Your task to perform on an android device: change alarm snooze length Image 0: 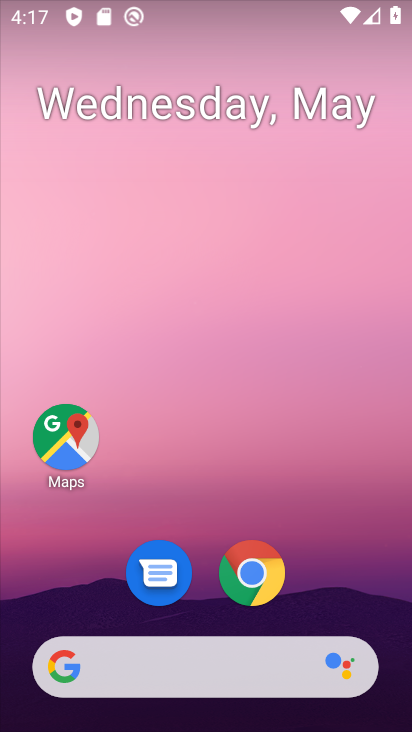
Step 0: click (158, 6)
Your task to perform on an android device: change alarm snooze length Image 1: 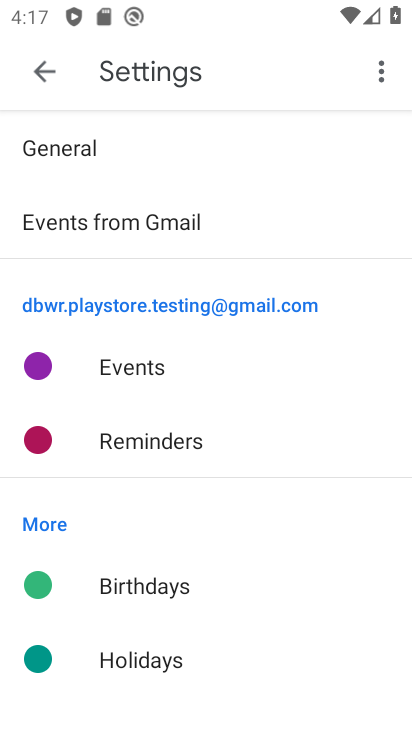
Step 1: press back button
Your task to perform on an android device: change alarm snooze length Image 2: 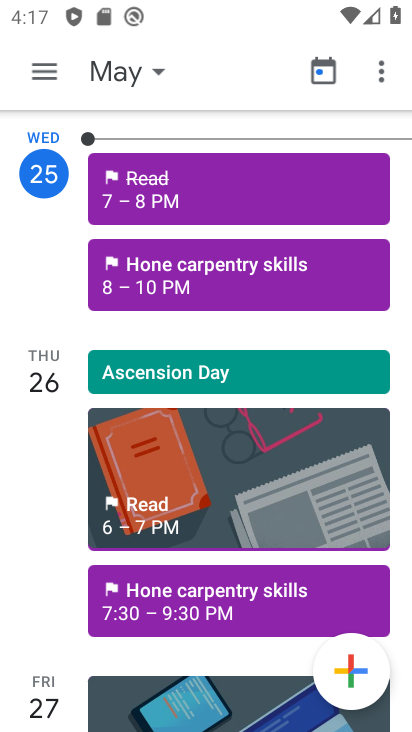
Step 2: press home button
Your task to perform on an android device: change alarm snooze length Image 3: 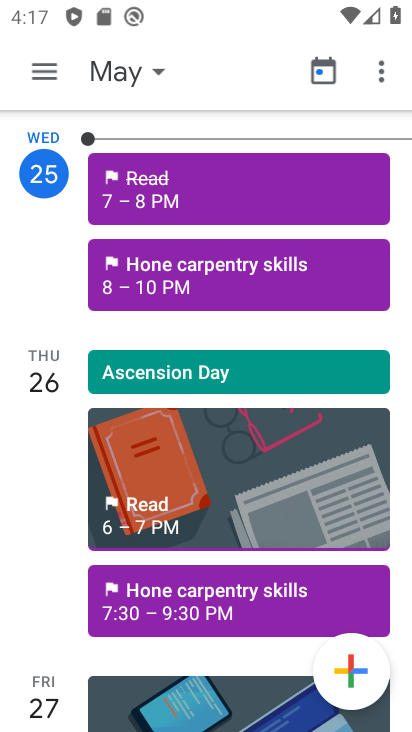
Step 3: press home button
Your task to perform on an android device: change alarm snooze length Image 4: 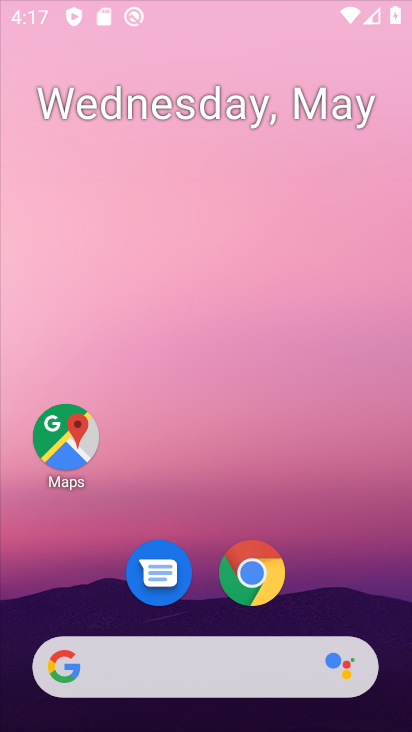
Step 4: press home button
Your task to perform on an android device: change alarm snooze length Image 5: 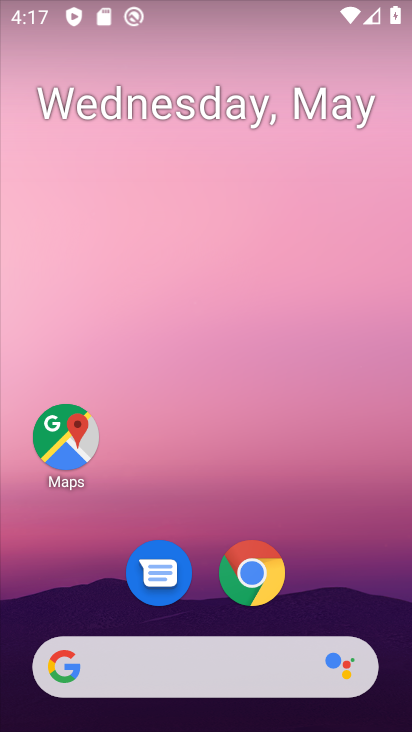
Step 5: drag from (334, 590) to (141, 0)
Your task to perform on an android device: change alarm snooze length Image 6: 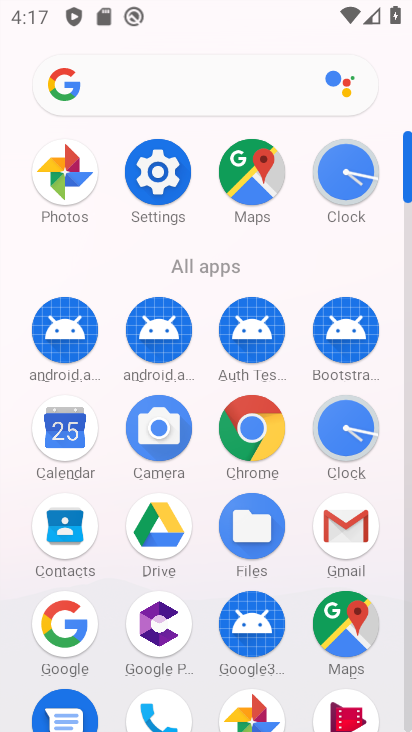
Step 6: click (332, 176)
Your task to perform on an android device: change alarm snooze length Image 7: 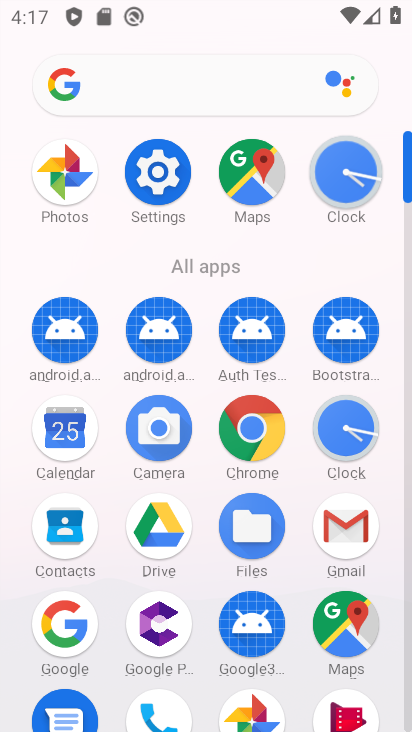
Step 7: click (332, 177)
Your task to perform on an android device: change alarm snooze length Image 8: 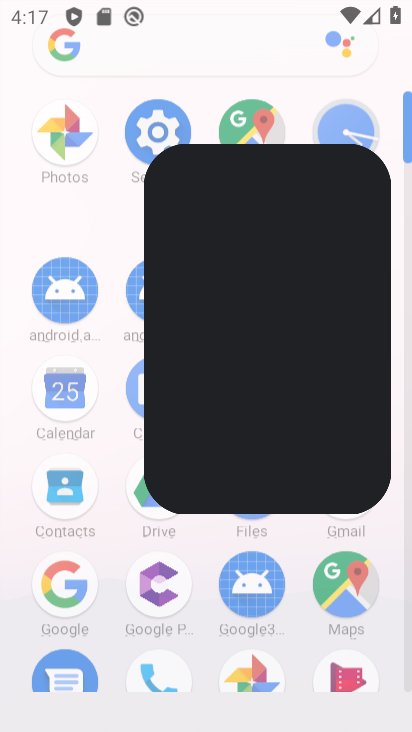
Step 8: click (332, 177)
Your task to perform on an android device: change alarm snooze length Image 9: 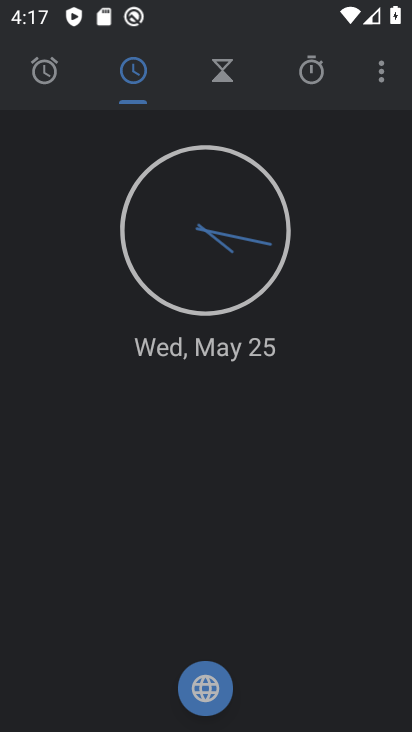
Step 9: click (332, 177)
Your task to perform on an android device: change alarm snooze length Image 10: 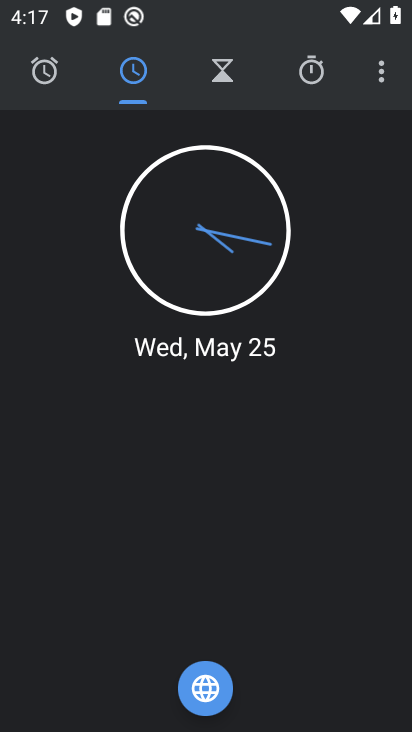
Step 10: click (332, 177)
Your task to perform on an android device: change alarm snooze length Image 11: 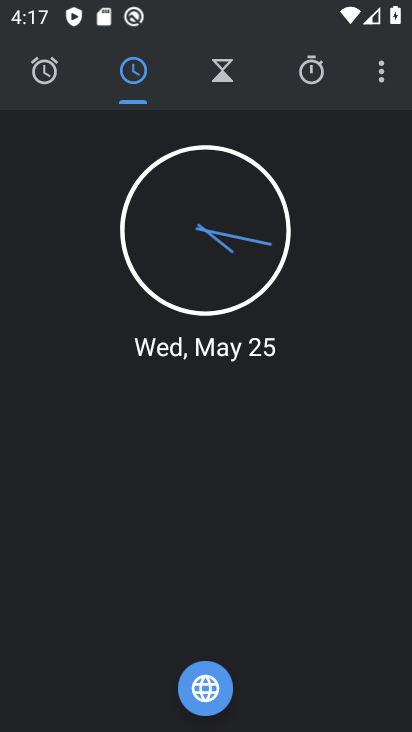
Step 11: click (332, 177)
Your task to perform on an android device: change alarm snooze length Image 12: 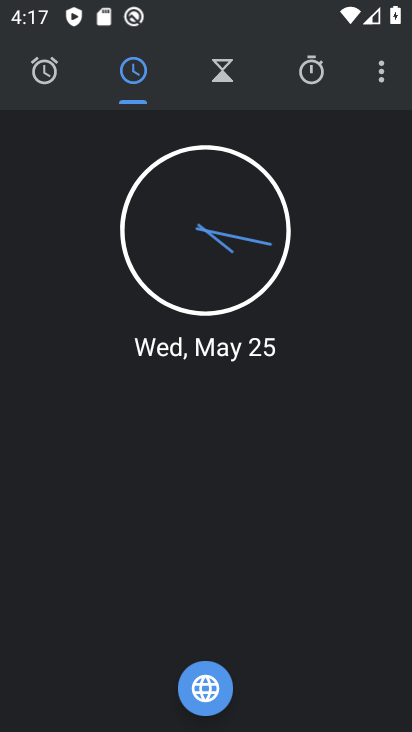
Step 12: drag from (375, 82) to (201, 134)
Your task to perform on an android device: change alarm snooze length Image 13: 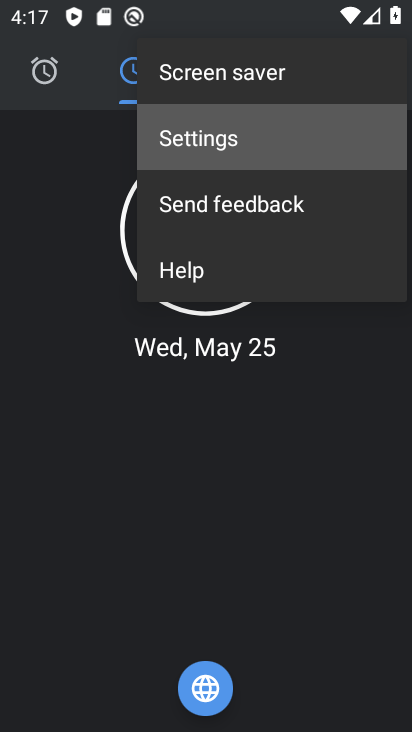
Step 13: click (203, 134)
Your task to perform on an android device: change alarm snooze length Image 14: 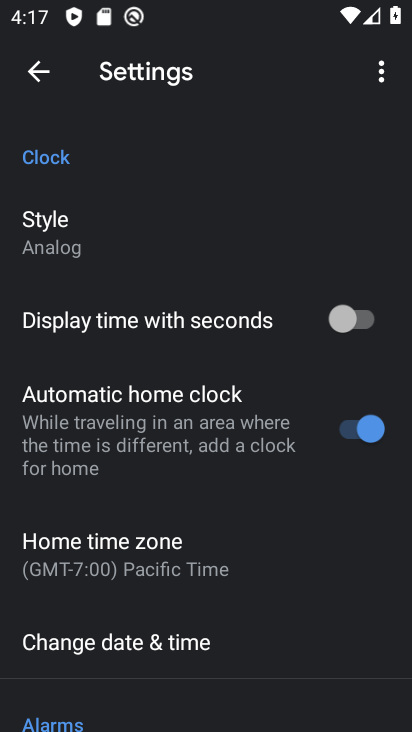
Step 14: drag from (131, 533) to (55, 109)
Your task to perform on an android device: change alarm snooze length Image 15: 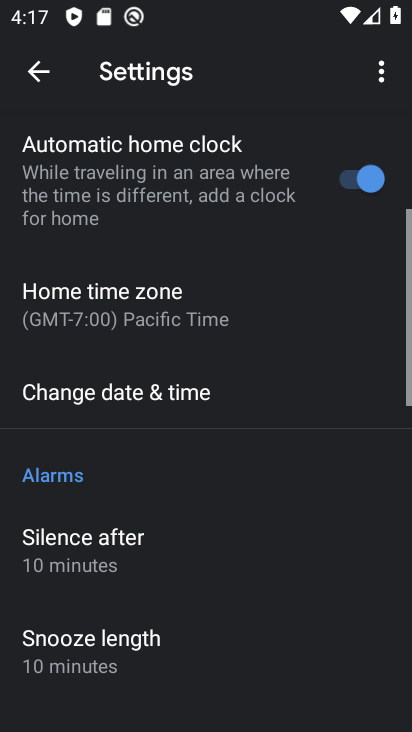
Step 15: drag from (134, 414) to (128, 148)
Your task to perform on an android device: change alarm snooze length Image 16: 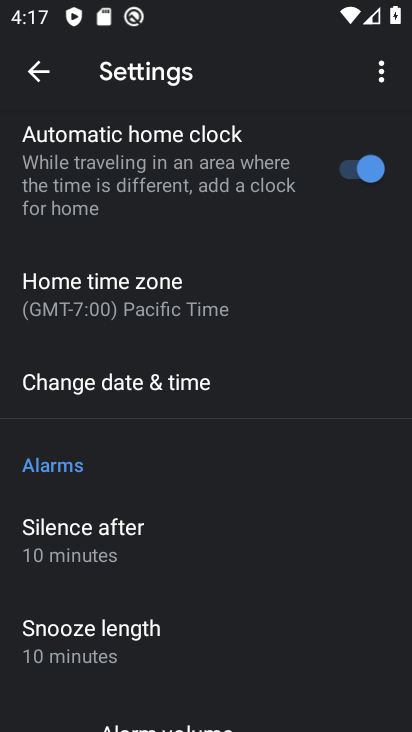
Step 16: click (80, 648)
Your task to perform on an android device: change alarm snooze length Image 17: 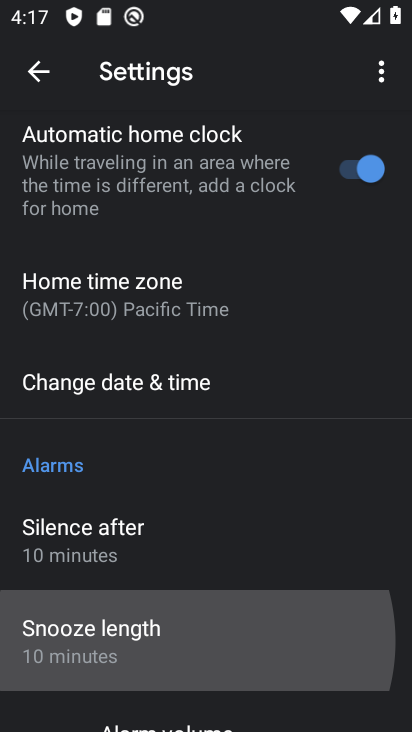
Step 17: click (81, 647)
Your task to perform on an android device: change alarm snooze length Image 18: 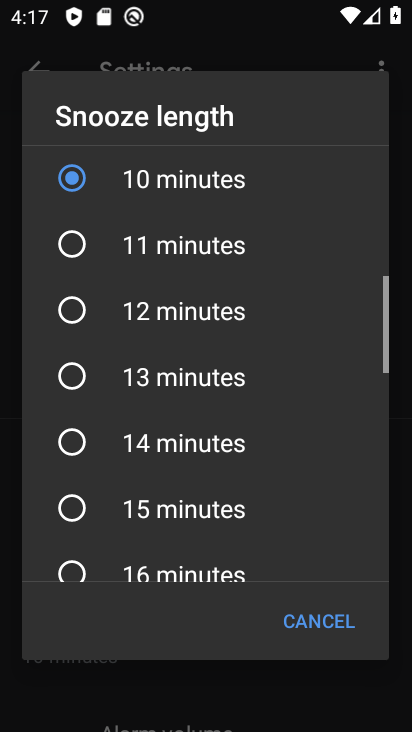
Step 18: click (81, 647)
Your task to perform on an android device: change alarm snooze length Image 19: 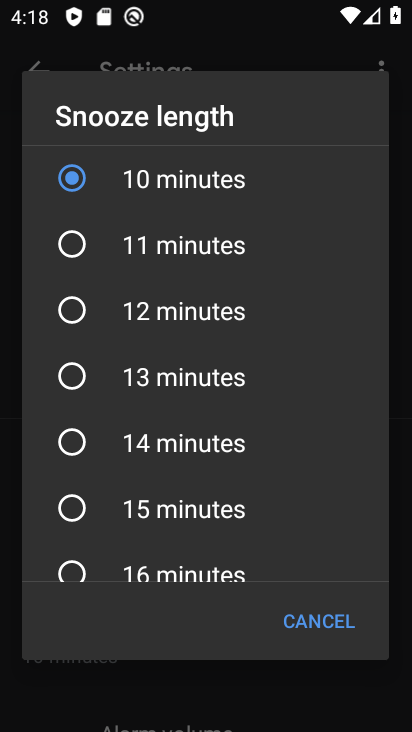
Step 19: click (77, 310)
Your task to perform on an android device: change alarm snooze length Image 20: 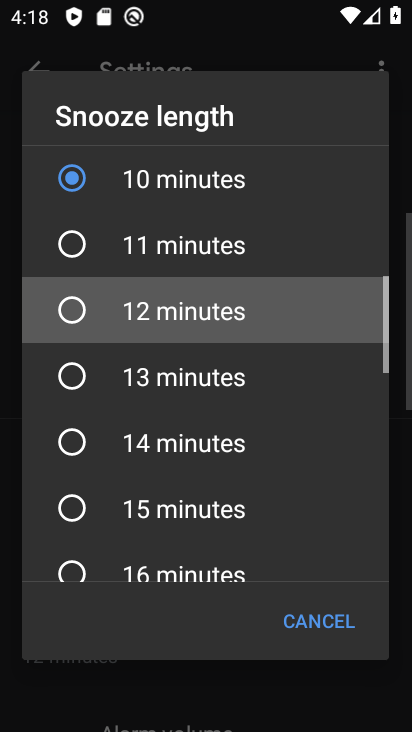
Step 20: click (77, 310)
Your task to perform on an android device: change alarm snooze length Image 21: 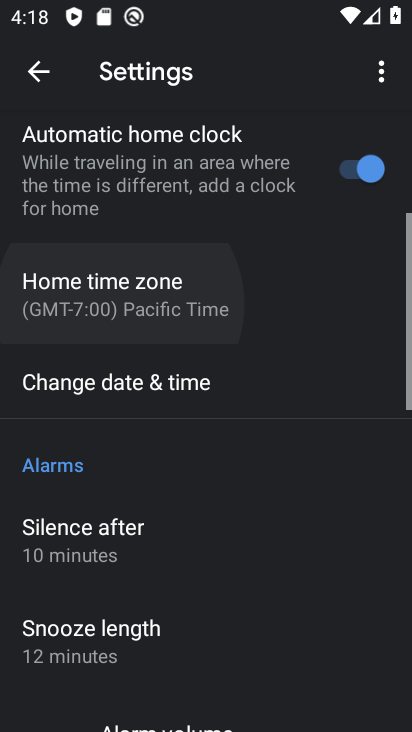
Step 21: click (77, 310)
Your task to perform on an android device: change alarm snooze length Image 22: 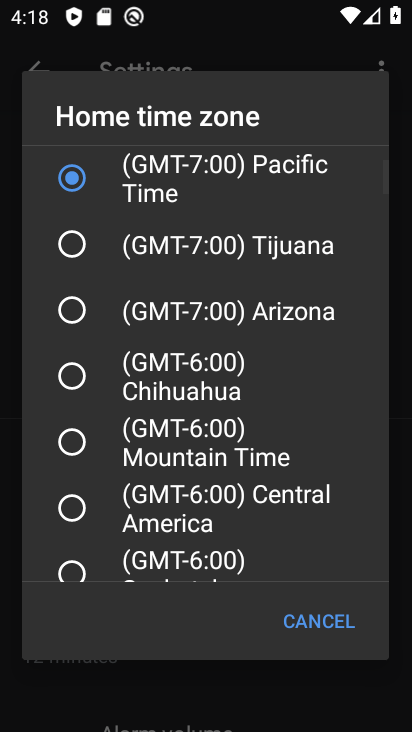
Step 22: task complete